Your task to perform on an android device: turn on sleep mode Image 0: 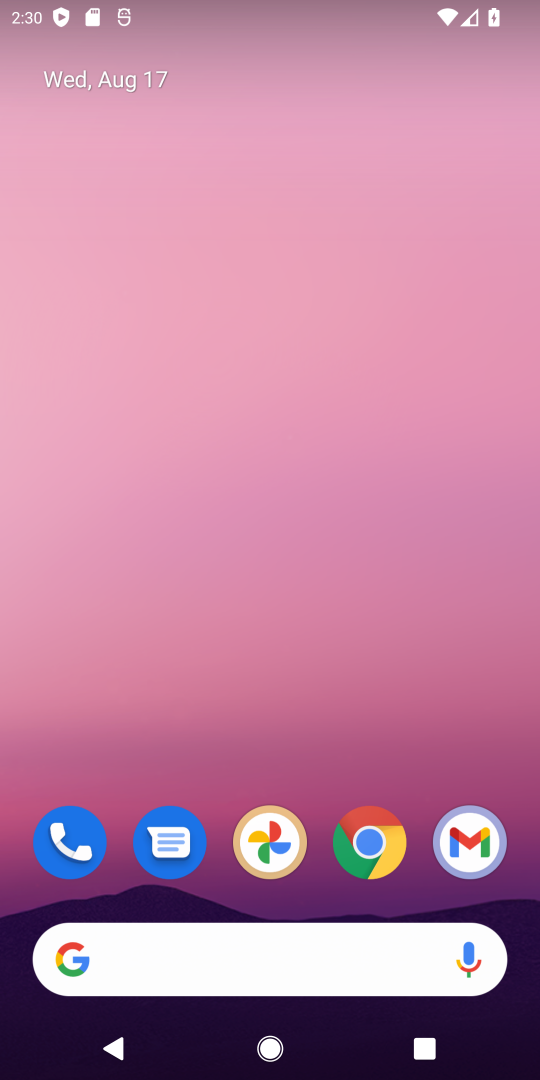
Step 0: drag from (510, 895) to (265, 34)
Your task to perform on an android device: turn on sleep mode Image 1: 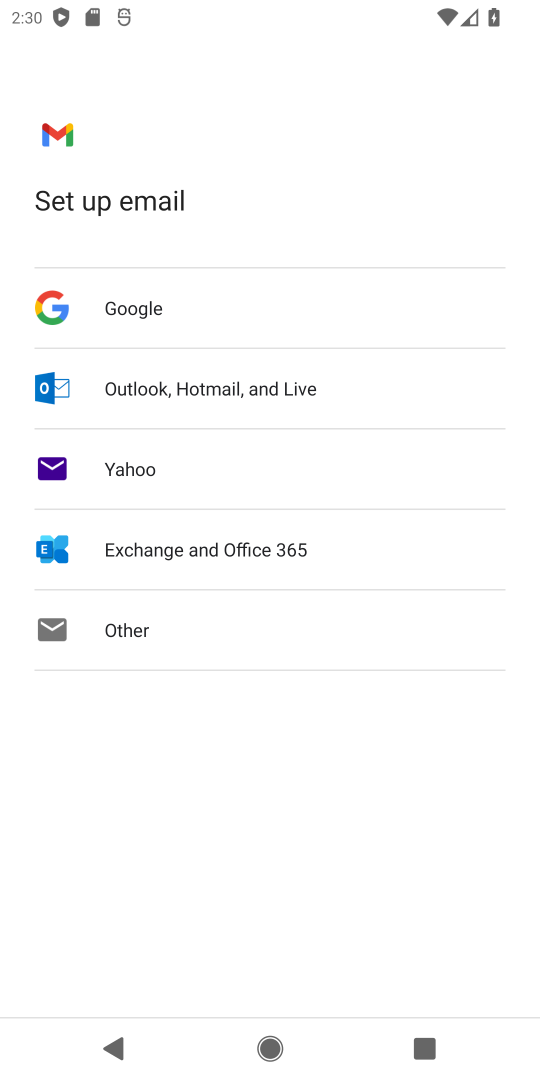
Step 1: press home button
Your task to perform on an android device: turn on sleep mode Image 2: 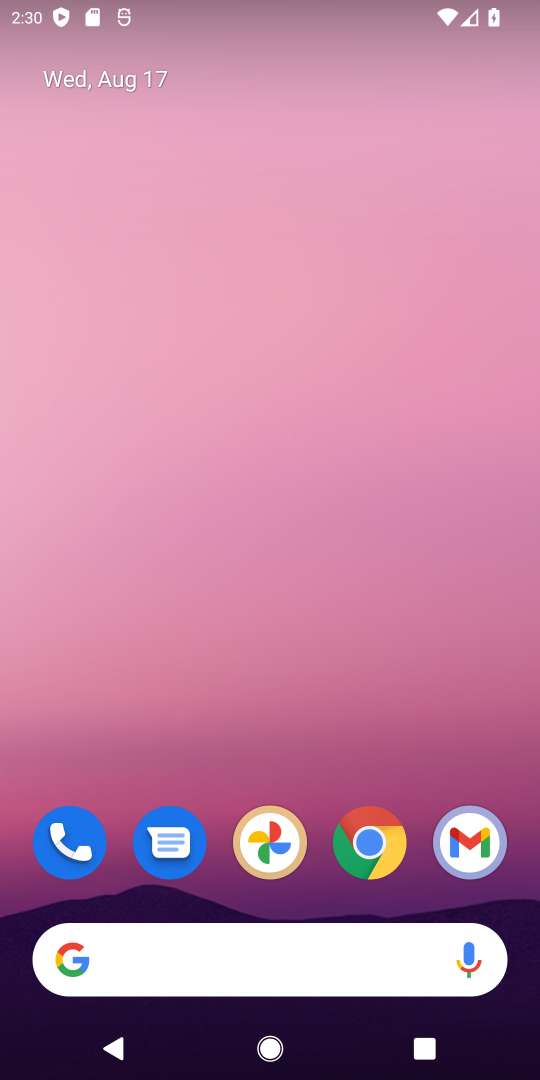
Step 2: drag from (453, 670) to (191, 3)
Your task to perform on an android device: turn on sleep mode Image 3: 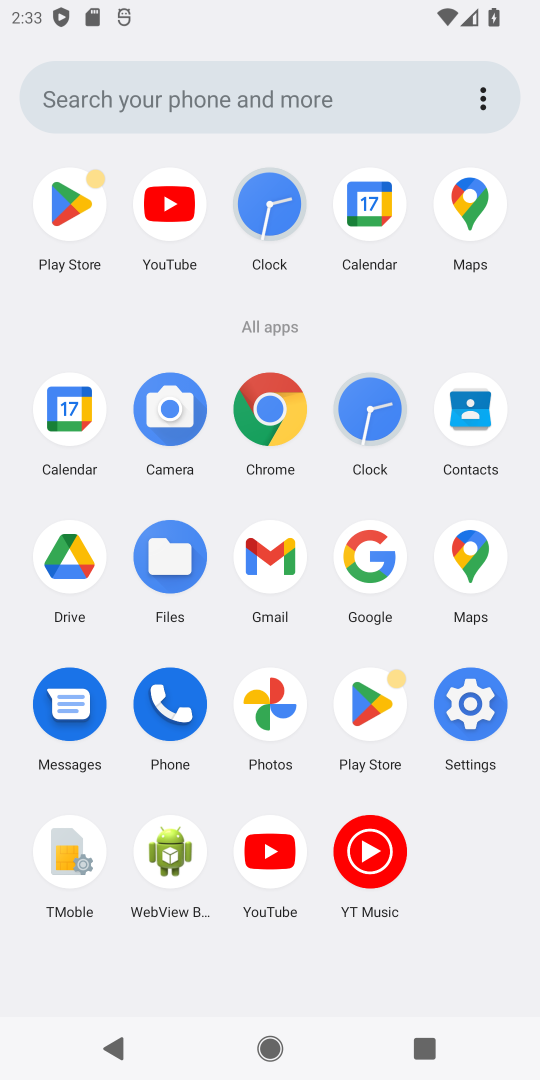
Step 3: click (461, 682)
Your task to perform on an android device: turn on sleep mode Image 4: 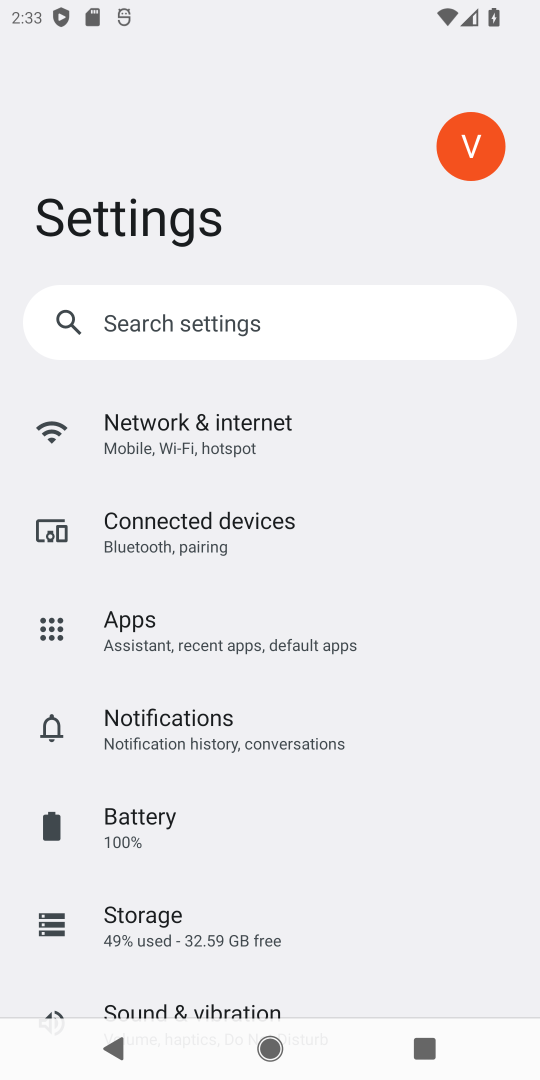
Step 4: task complete